Your task to perform on an android device: change keyboard looks Image 0: 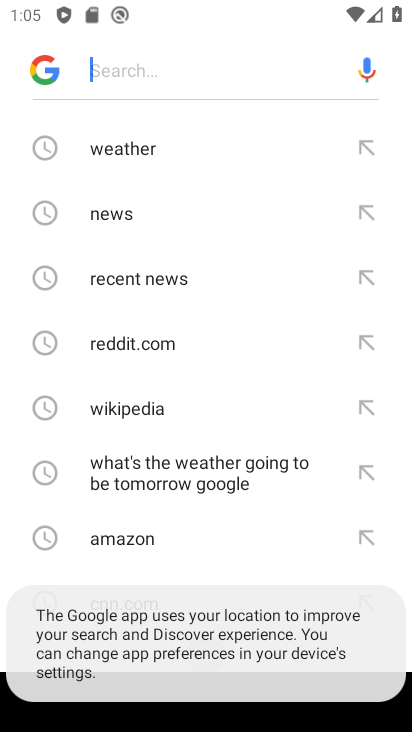
Step 0: press home button
Your task to perform on an android device: change keyboard looks Image 1: 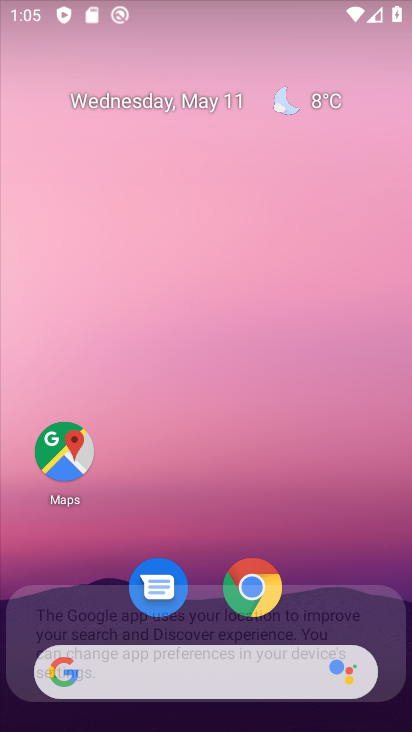
Step 1: drag from (320, 584) to (362, 78)
Your task to perform on an android device: change keyboard looks Image 2: 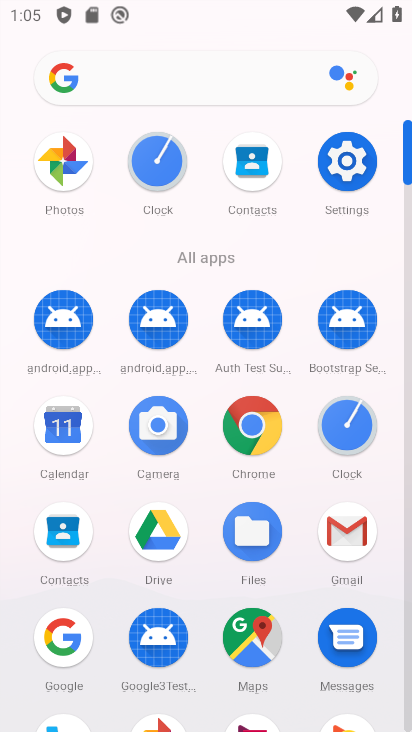
Step 2: click (340, 184)
Your task to perform on an android device: change keyboard looks Image 3: 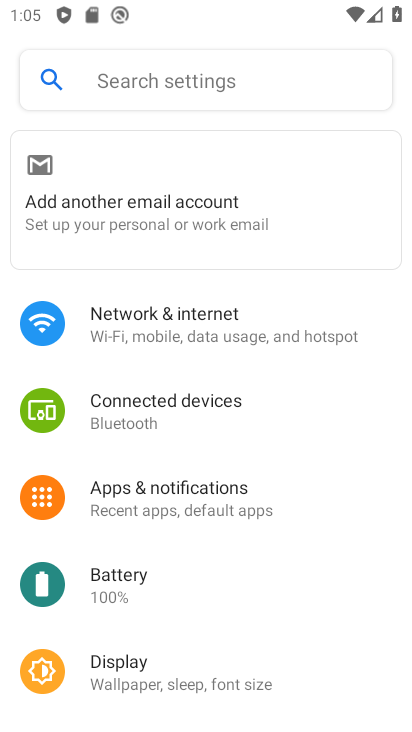
Step 3: drag from (272, 618) to (253, 133)
Your task to perform on an android device: change keyboard looks Image 4: 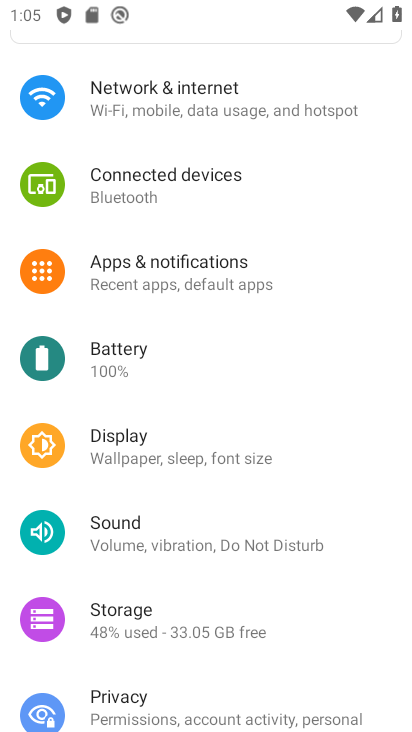
Step 4: drag from (234, 557) to (250, 137)
Your task to perform on an android device: change keyboard looks Image 5: 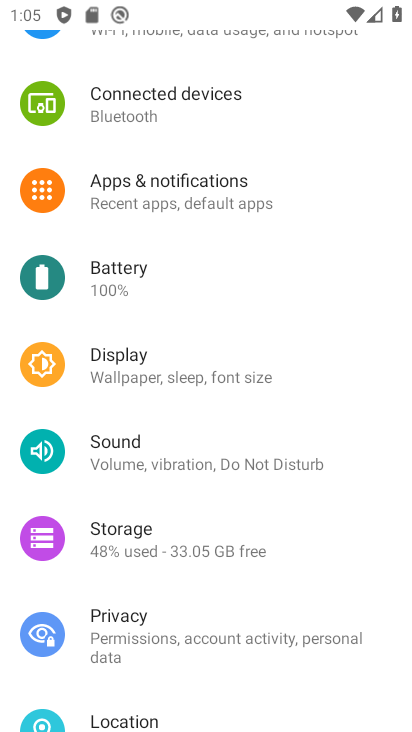
Step 5: drag from (245, 604) to (245, 55)
Your task to perform on an android device: change keyboard looks Image 6: 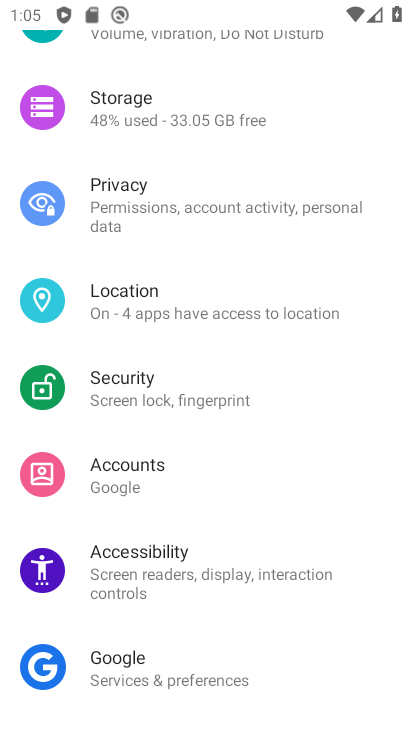
Step 6: drag from (271, 512) to (268, 91)
Your task to perform on an android device: change keyboard looks Image 7: 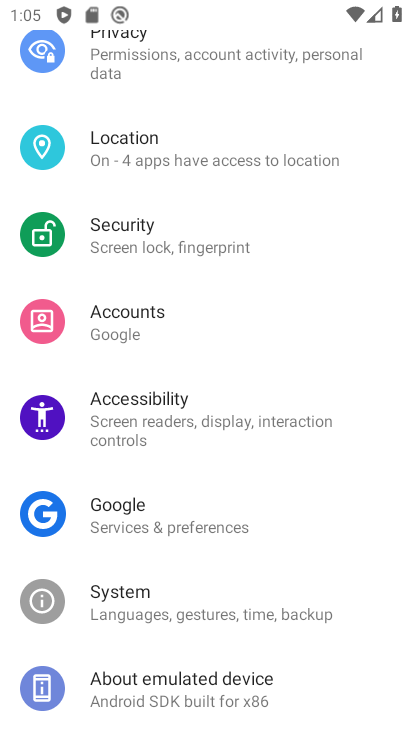
Step 7: click (157, 613)
Your task to perform on an android device: change keyboard looks Image 8: 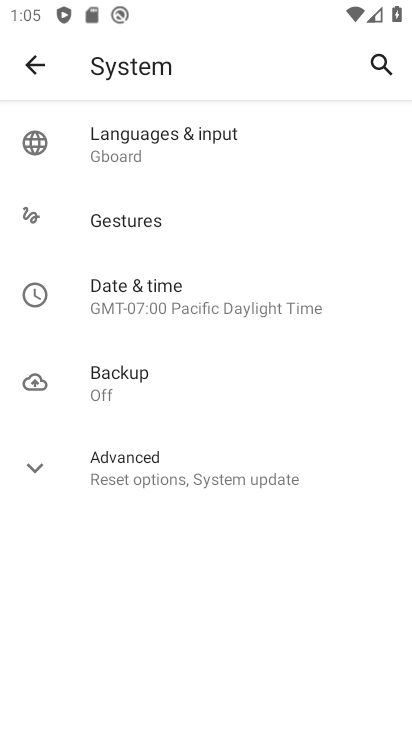
Step 8: click (169, 152)
Your task to perform on an android device: change keyboard looks Image 9: 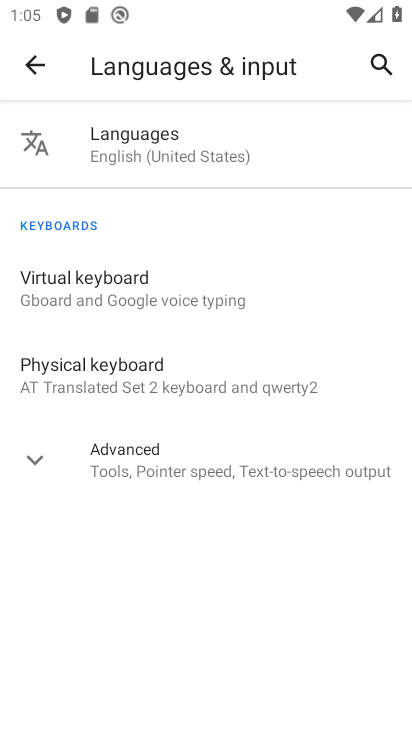
Step 9: click (196, 267)
Your task to perform on an android device: change keyboard looks Image 10: 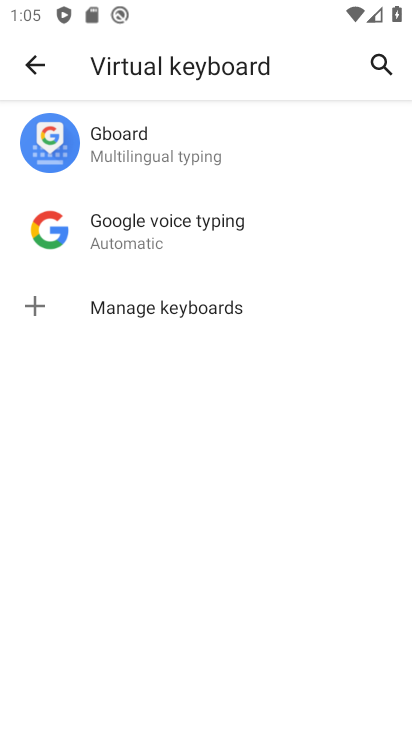
Step 10: click (196, 150)
Your task to perform on an android device: change keyboard looks Image 11: 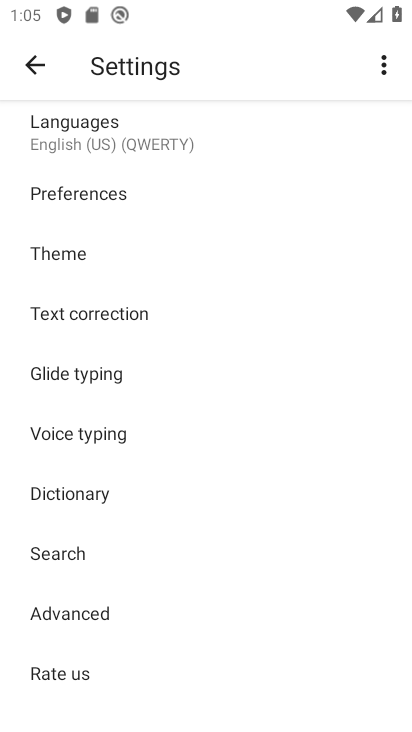
Step 11: click (172, 279)
Your task to perform on an android device: change keyboard looks Image 12: 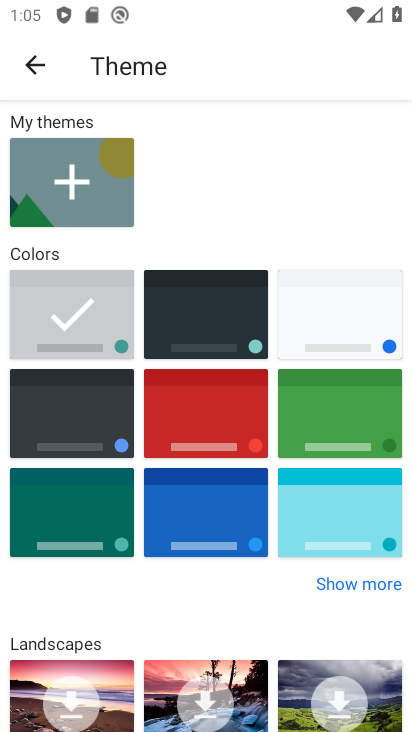
Step 12: click (195, 342)
Your task to perform on an android device: change keyboard looks Image 13: 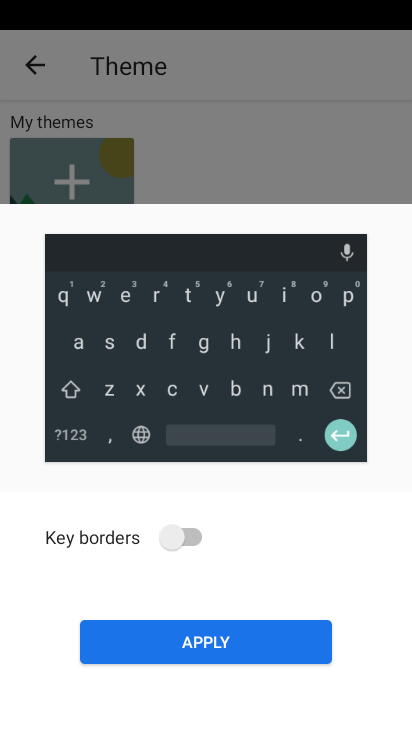
Step 13: click (221, 638)
Your task to perform on an android device: change keyboard looks Image 14: 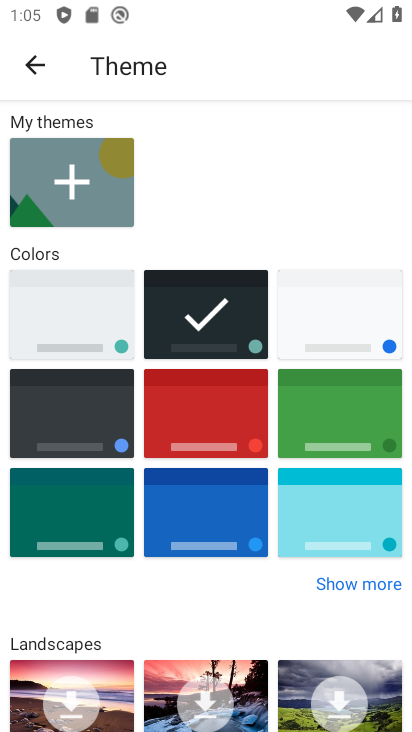
Step 14: task complete